Your task to perform on an android device: turn off notifications settings in the gmail app Image 0: 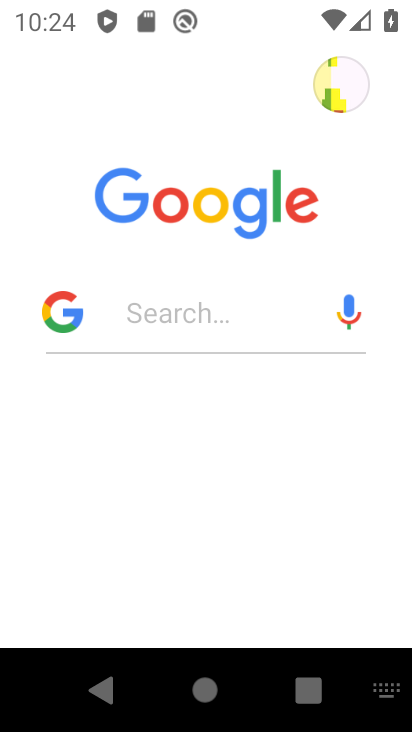
Step 0: press home button
Your task to perform on an android device: turn off notifications settings in the gmail app Image 1: 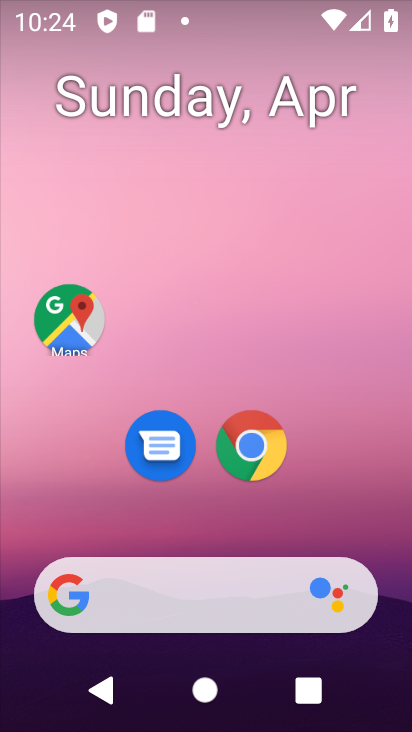
Step 1: drag from (200, 448) to (264, 190)
Your task to perform on an android device: turn off notifications settings in the gmail app Image 2: 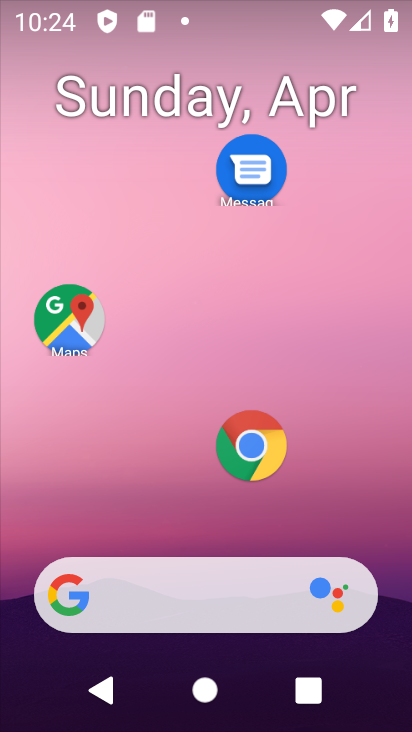
Step 2: drag from (168, 602) to (331, 73)
Your task to perform on an android device: turn off notifications settings in the gmail app Image 3: 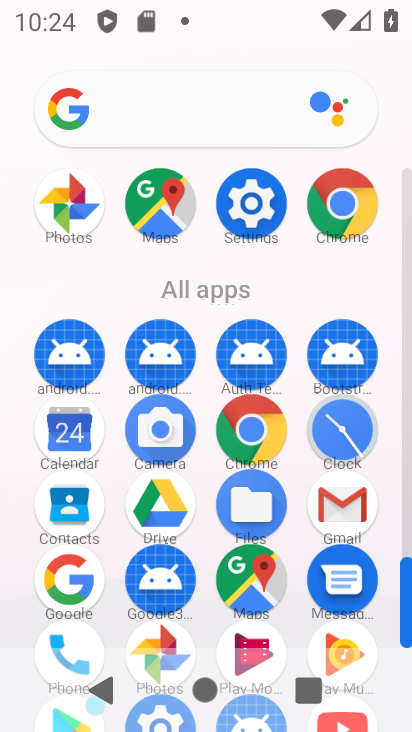
Step 3: click (339, 515)
Your task to perform on an android device: turn off notifications settings in the gmail app Image 4: 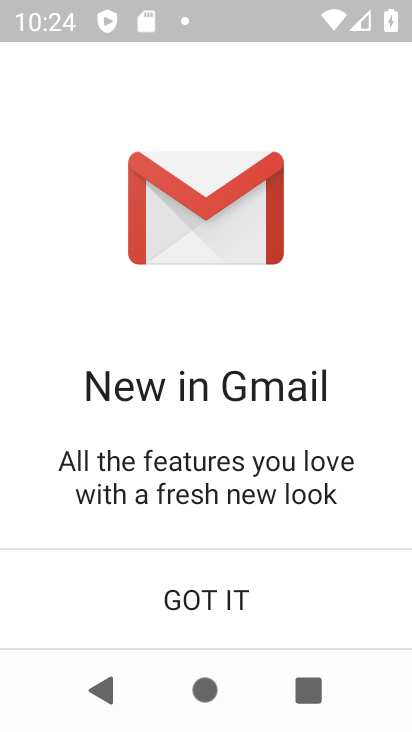
Step 4: click (191, 614)
Your task to perform on an android device: turn off notifications settings in the gmail app Image 5: 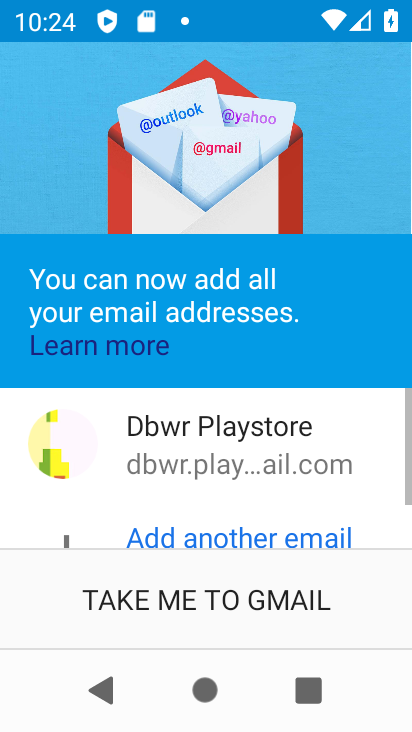
Step 5: click (188, 595)
Your task to perform on an android device: turn off notifications settings in the gmail app Image 6: 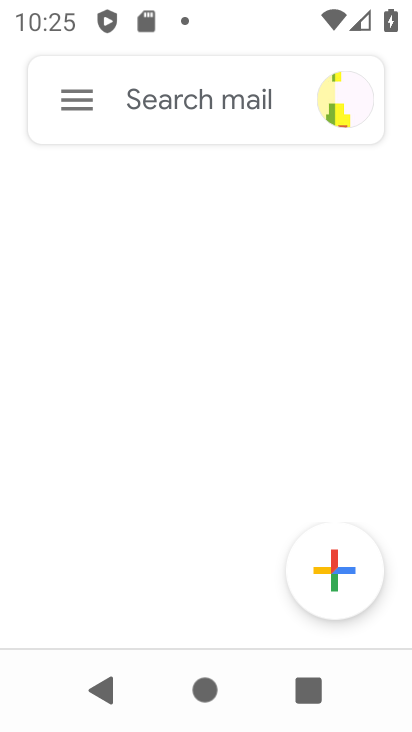
Step 6: click (71, 105)
Your task to perform on an android device: turn off notifications settings in the gmail app Image 7: 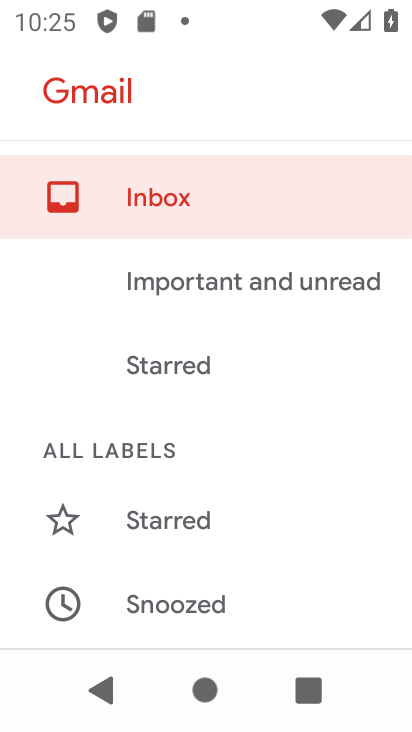
Step 7: drag from (183, 561) to (305, 42)
Your task to perform on an android device: turn off notifications settings in the gmail app Image 8: 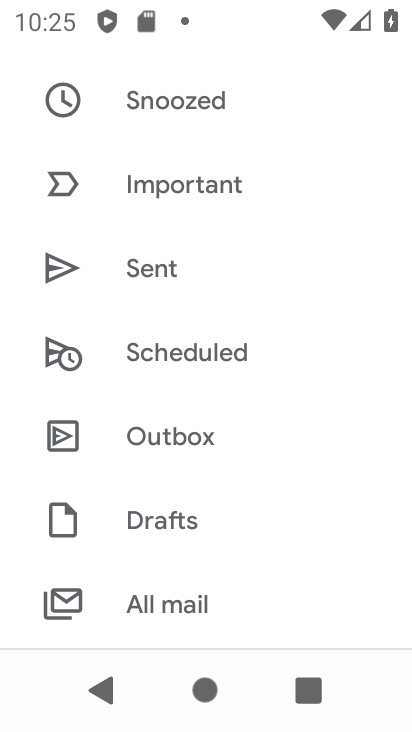
Step 8: drag from (156, 592) to (322, 42)
Your task to perform on an android device: turn off notifications settings in the gmail app Image 9: 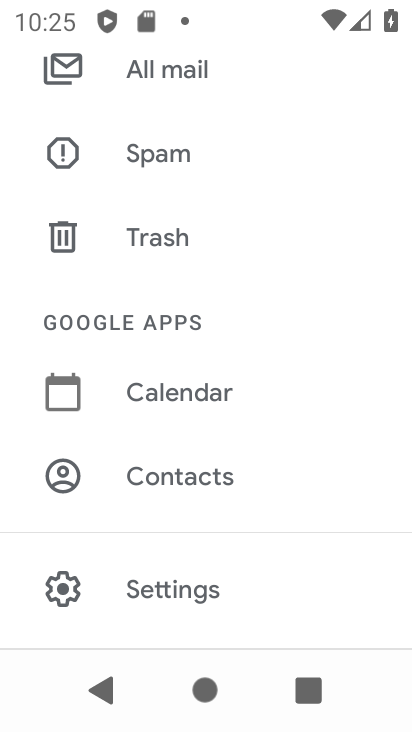
Step 9: click (160, 592)
Your task to perform on an android device: turn off notifications settings in the gmail app Image 10: 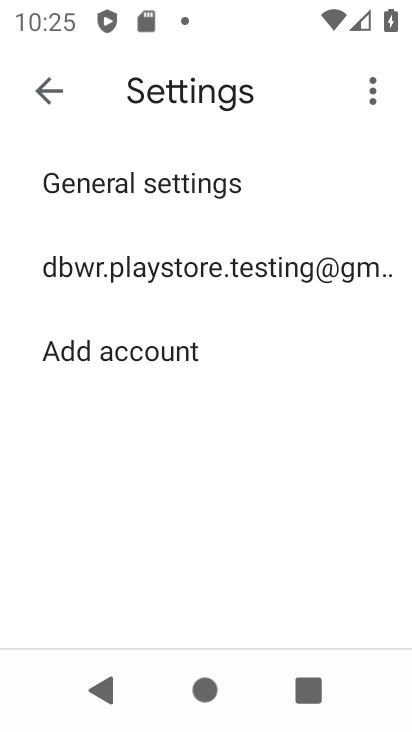
Step 10: click (294, 264)
Your task to perform on an android device: turn off notifications settings in the gmail app Image 11: 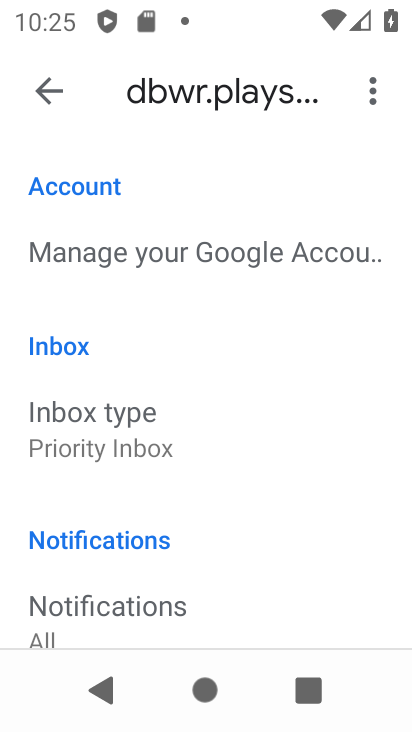
Step 11: drag from (200, 550) to (337, 151)
Your task to perform on an android device: turn off notifications settings in the gmail app Image 12: 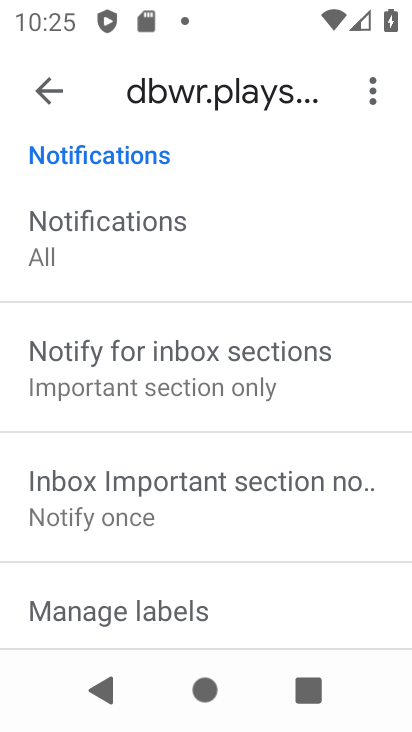
Step 12: click (102, 241)
Your task to perform on an android device: turn off notifications settings in the gmail app Image 13: 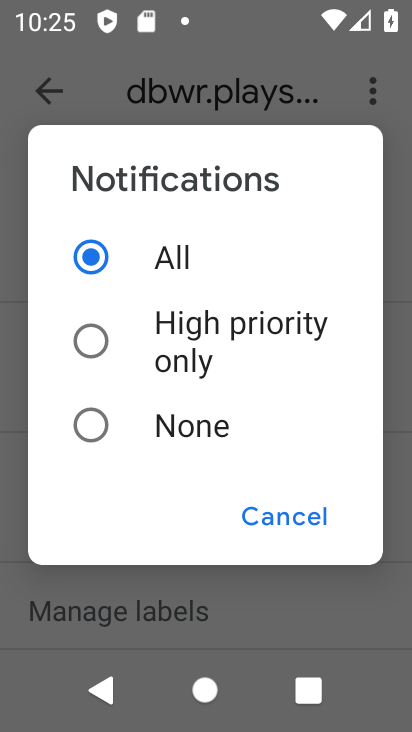
Step 13: click (83, 430)
Your task to perform on an android device: turn off notifications settings in the gmail app Image 14: 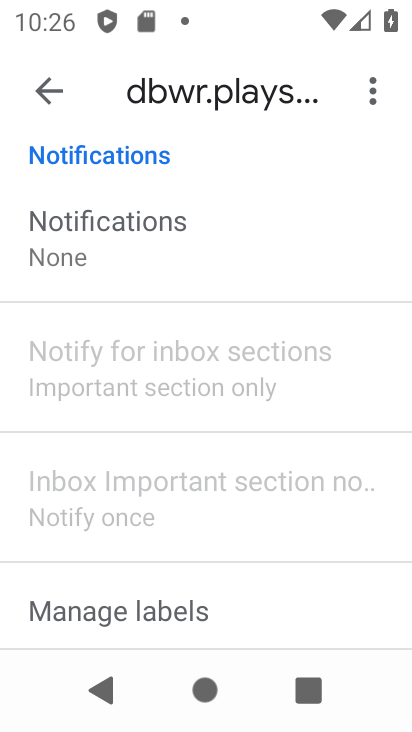
Step 14: task complete